Your task to perform on an android device: Go to battery settings Image 0: 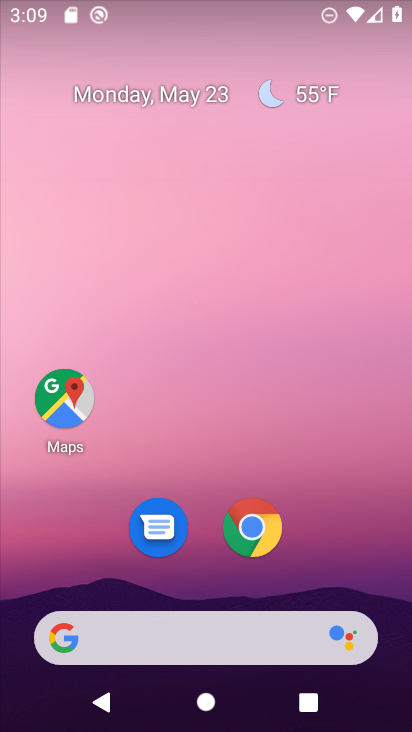
Step 0: press home button
Your task to perform on an android device: Go to battery settings Image 1: 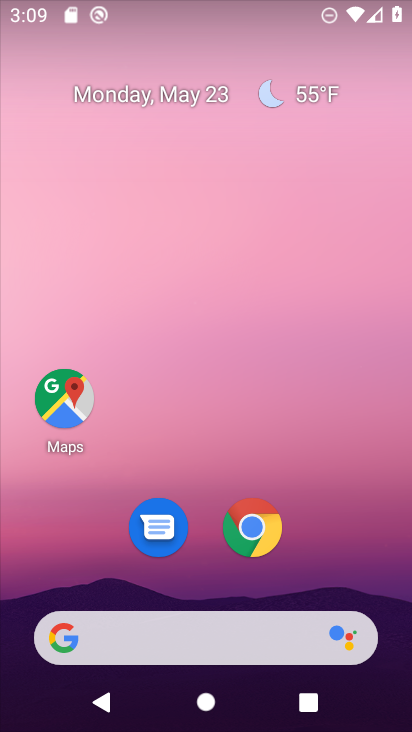
Step 1: drag from (214, 581) to (215, 94)
Your task to perform on an android device: Go to battery settings Image 2: 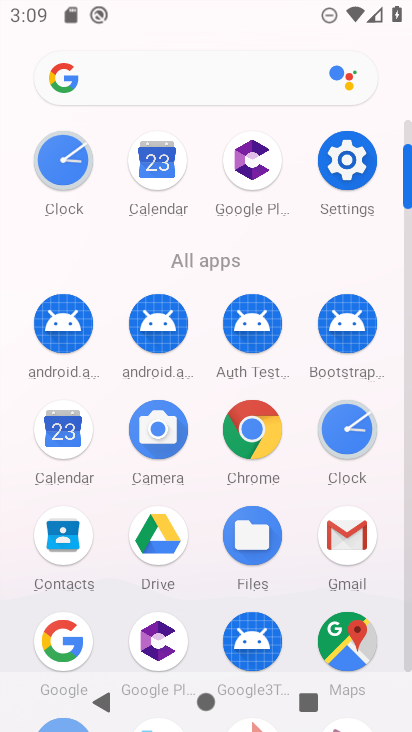
Step 2: click (336, 154)
Your task to perform on an android device: Go to battery settings Image 3: 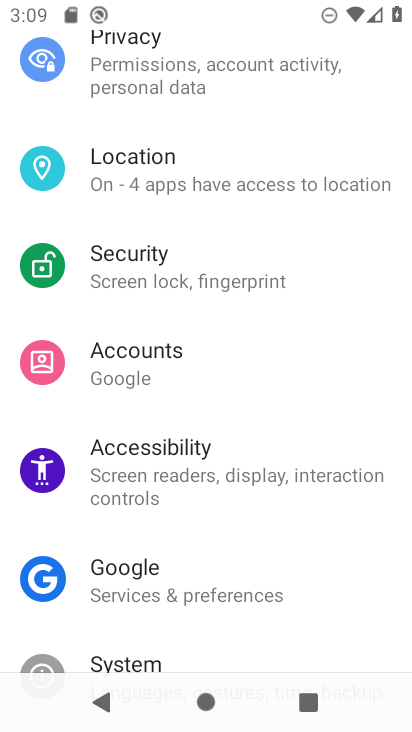
Step 3: drag from (188, 125) to (208, 670)
Your task to perform on an android device: Go to battery settings Image 4: 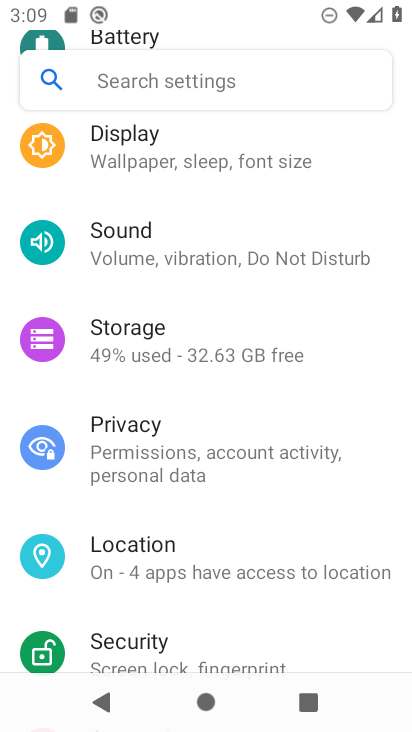
Step 4: drag from (179, 129) to (209, 491)
Your task to perform on an android device: Go to battery settings Image 5: 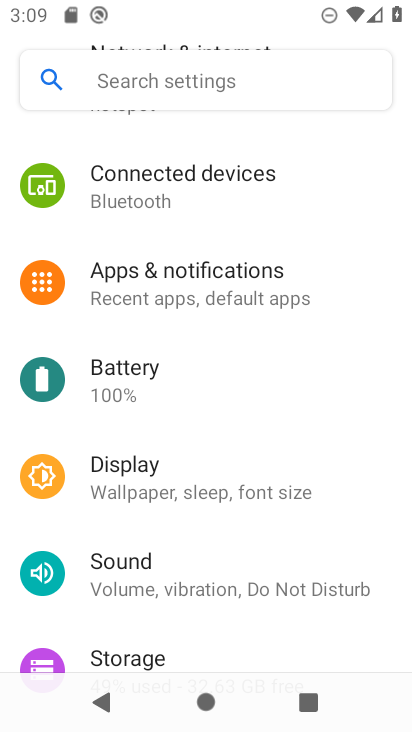
Step 5: click (149, 379)
Your task to perform on an android device: Go to battery settings Image 6: 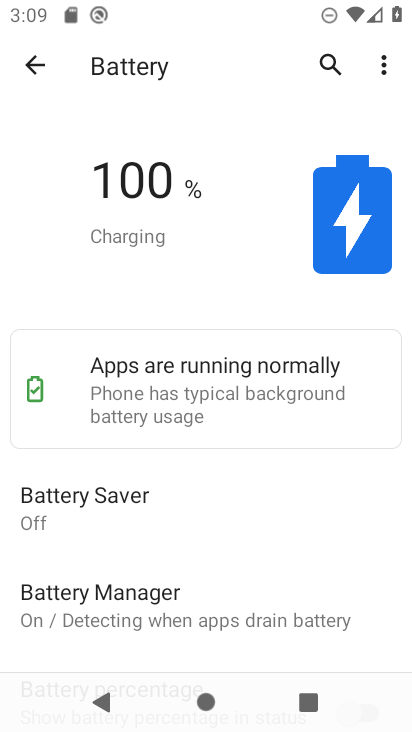
Step 6: task complete